Your task to perform on an android device: change text size in settings app Image 0: 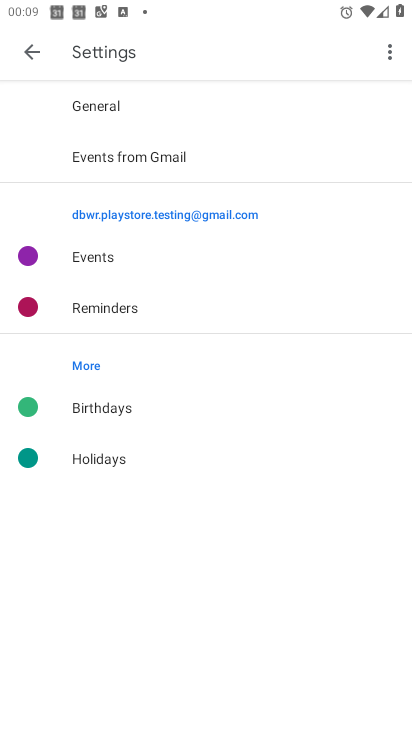
Step 0: press home button
Your task to perform on an android device: change text size in settings app Image 1: 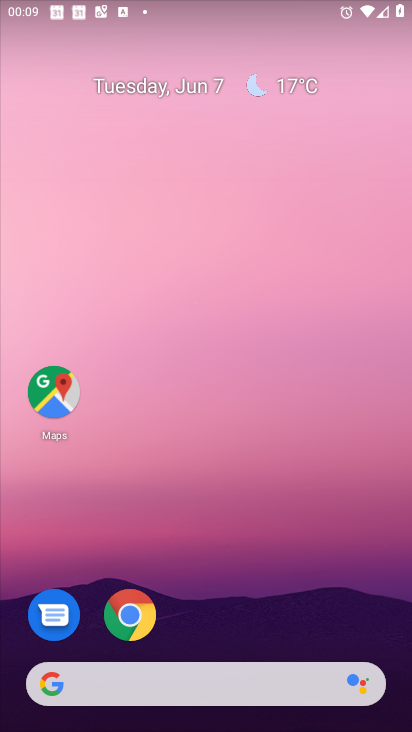
Step 1: drag from (397, 710) to (374, 160)
Your task to perform on an android device: change text size in settings app Image 2: 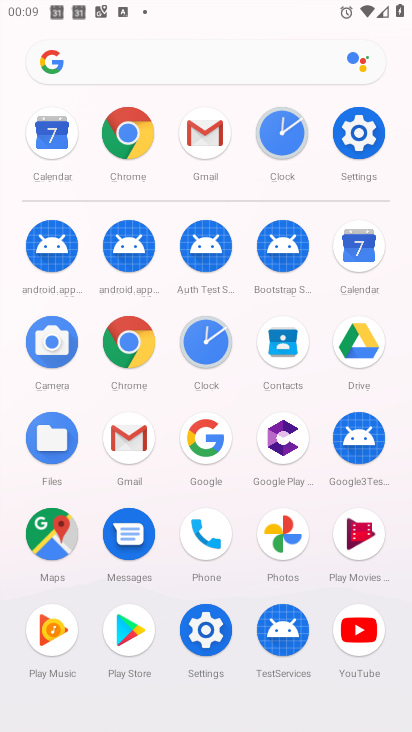
Step 2: click (364, 125)
Your task to perform on an android device: change text size in settings app Image 3: 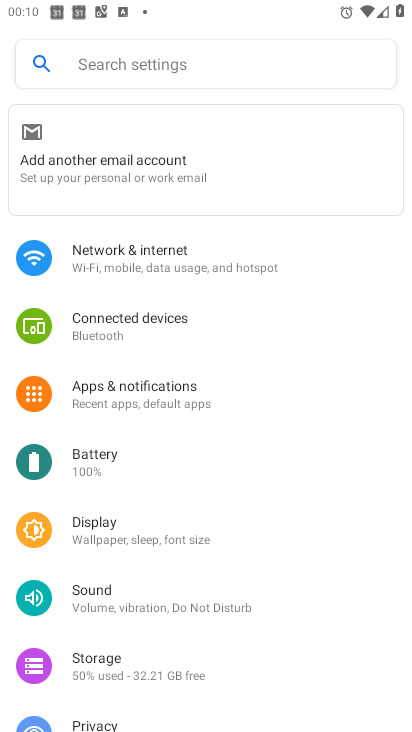
Step 3: click (110, 523)
Your task to perform on an android device: change text size in settings app Image 4: 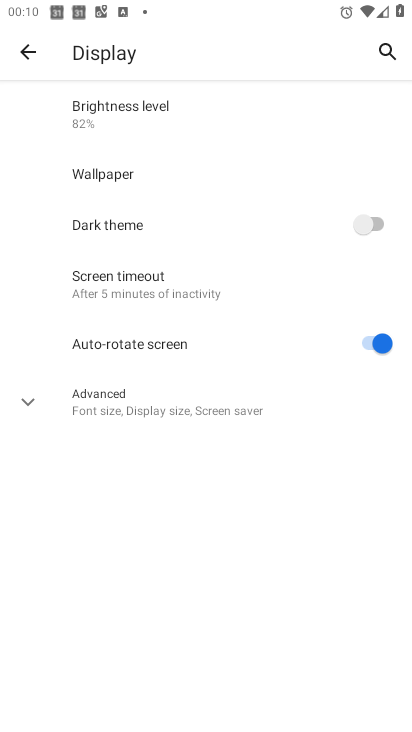
Step 4: click (110, 394)
Your task to perform on an android device: change text size in settings app Image 5: 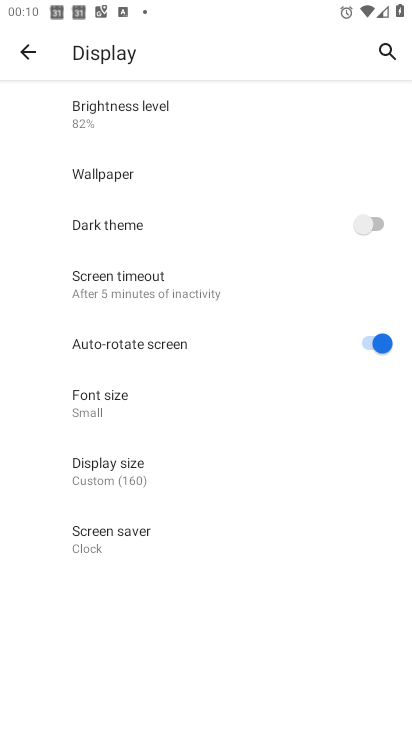
Step 5: click (110, 394)
Your task to perform on an android device: change text size in settings app Image 6: 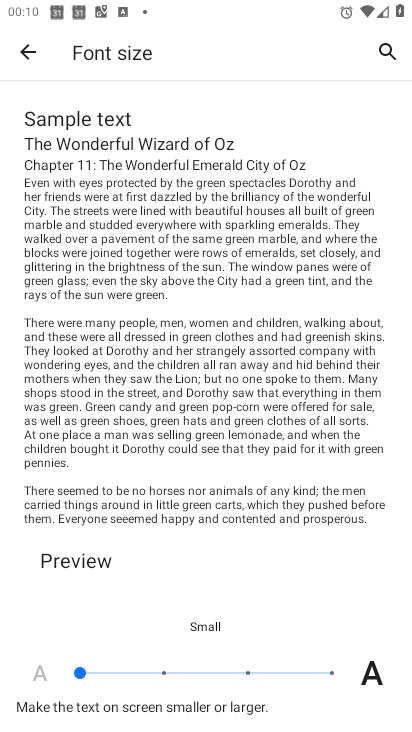
Step 6: click (163, 671)
Your task to perform on an android device: change text size in settings app Image 7: 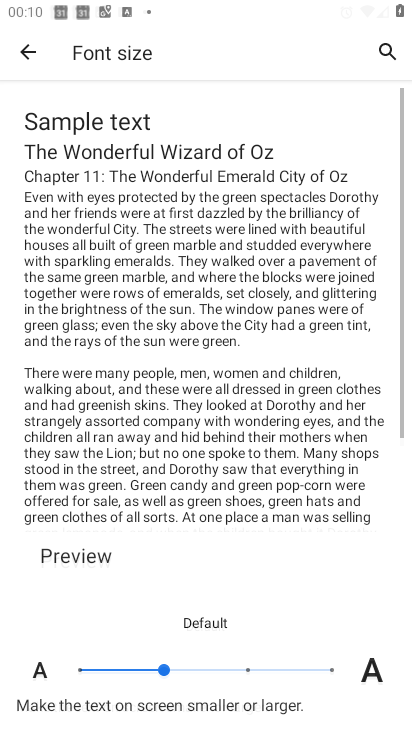
Step 7: task complete